Your task to perform on an android device: allow cookies in the chrome app Image 0: 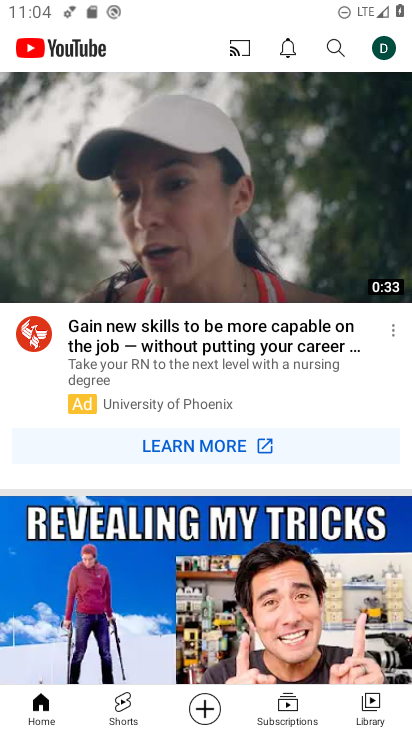
Step 0: press home button
Your task to perform on an android device: allow cookies in the chrome app Image 1: 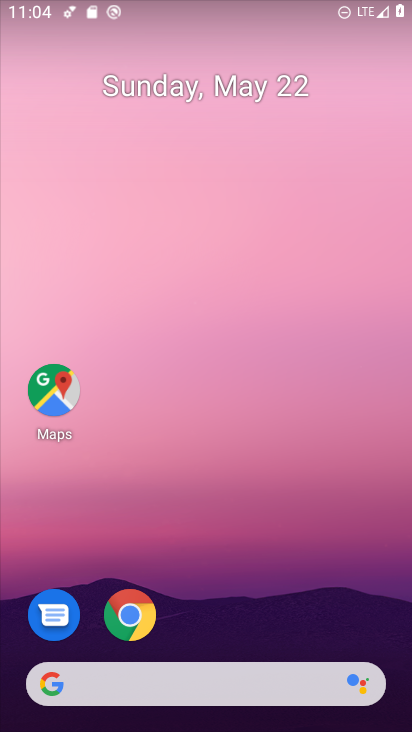
Step 1: click (119, 616)
Your task to perform on an android device: allow cookies in the chrome app Image 2: 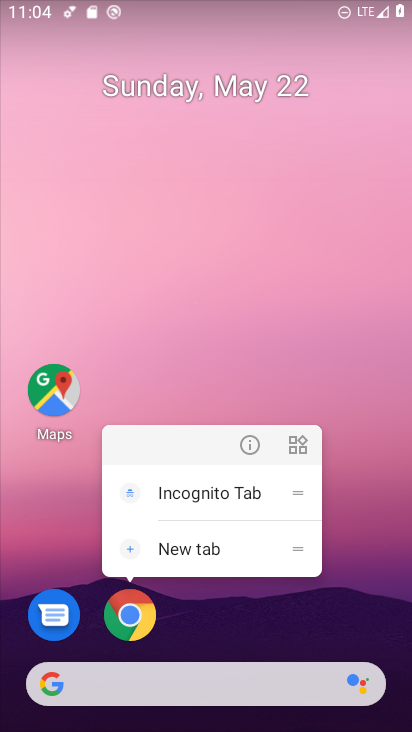
Step 2: click (134, 611)
Your task to perform on an android device: allow cookies in the chrome app Image 3: 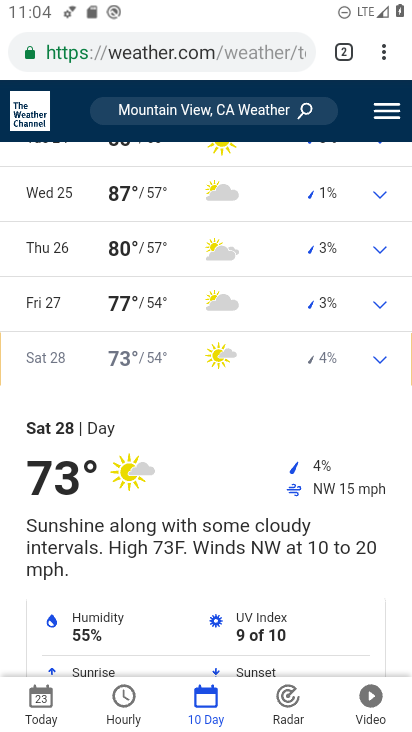
Step 3: drag from (387, 49) to (275, 598)
Your task to perform on an android device: allow cookies in the chrome app Image 4: 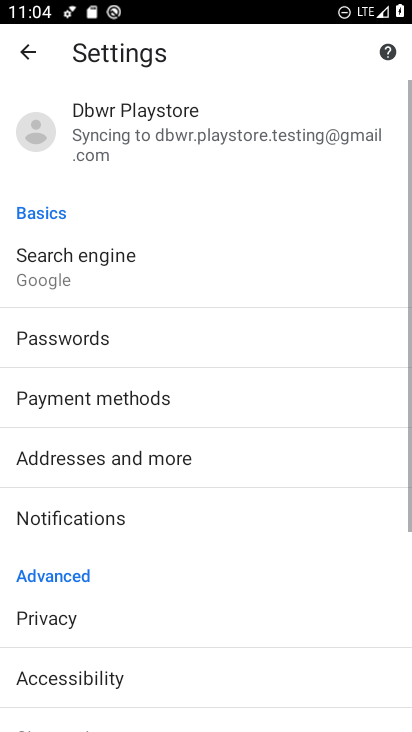
Step 4: drag from (176, 529) to (198, 240)
Your task to perform on an android device: allow cookies in the chrome app Image 5: 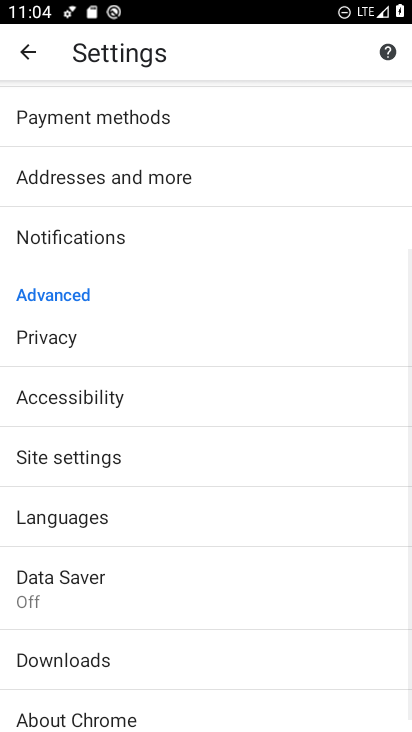
Step 5: click (16, 465)
Your task to perform on an android device: allow cookies in the chrome app Image 6: 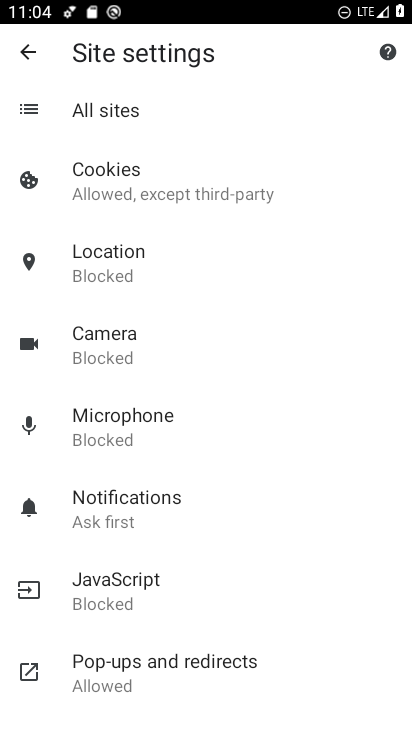
Step 6: click (172, 170)
Your task to perform on an android device: allow cookies in the chrome app Image 7: 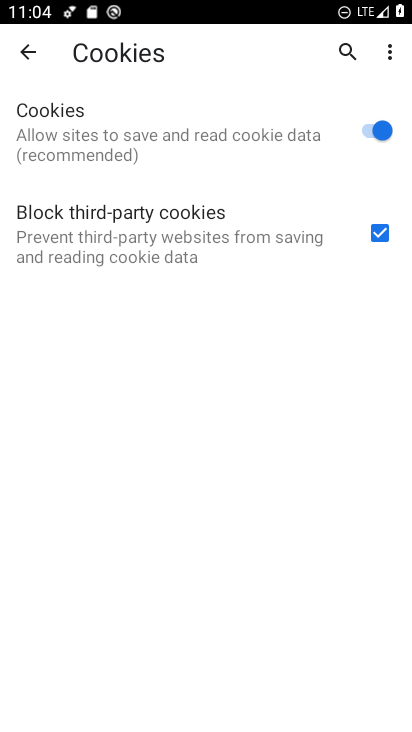
Step 7: task complete